Your task to perform on an android device: Show me recent news Image 0: 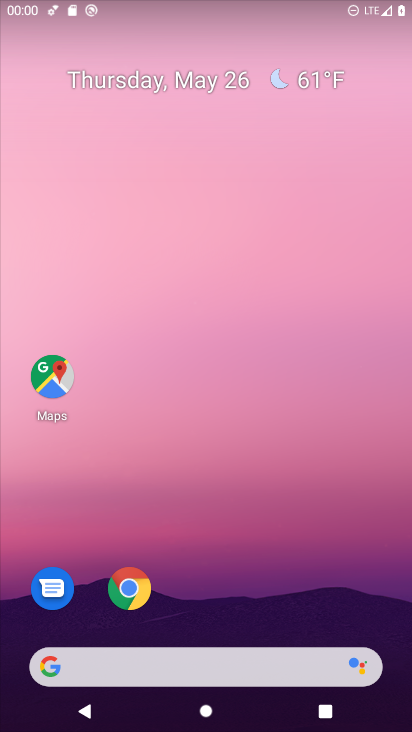
Step 0: drag from (12, 253) to (376, 199)
Your task to perform on an android device: Show me recent news Image 1: 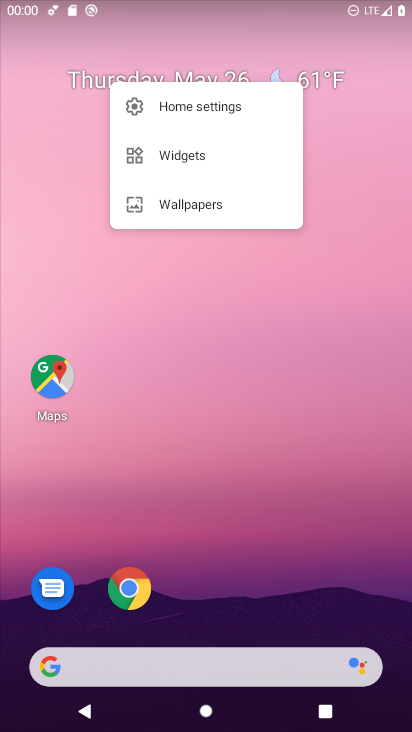
Step 1: click (221, 351)
Your task to perform on an android device: Show me recent news Image 2: 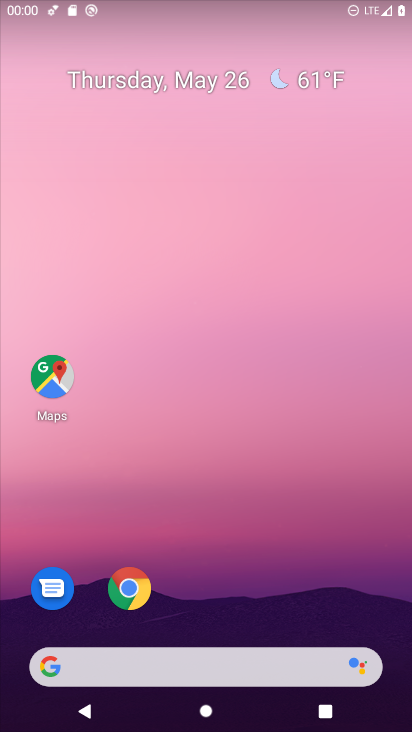
Step 2: drag from (15, 237) to (402, 299)
Your task to perform on an android device: Show me recent news Image 3: 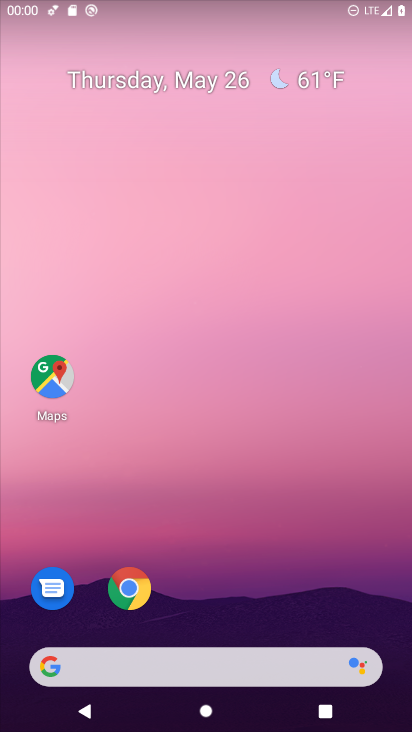
Step 3: drag from (21, 248) to (390, 334)
Your task to perform on an android device: Show me recent news Image 4: 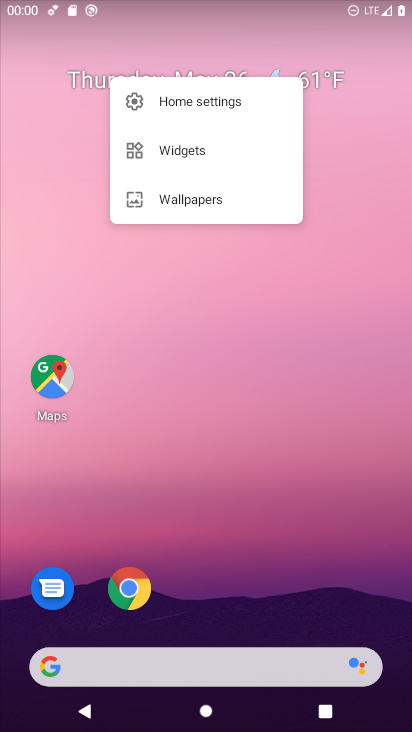
Step 4: click (10, 249)
Your task to perform on an android device: Show me recent news Image 5: 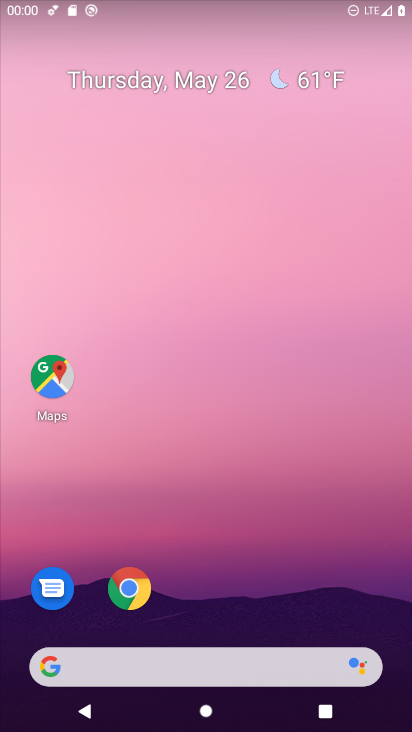
Step 5: drag from (10, 249) to (388, 275)
Your task to perform on an android device: Show me recent news Image 6: 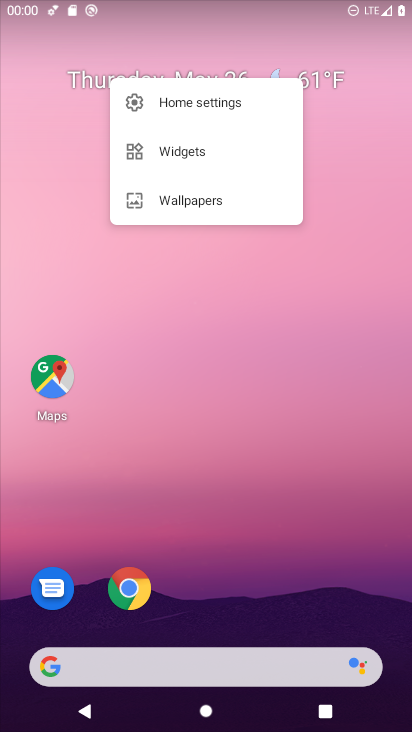
Step 6: click (32, 252)
Your task to perform on an android device: Show me recent news Image 7: 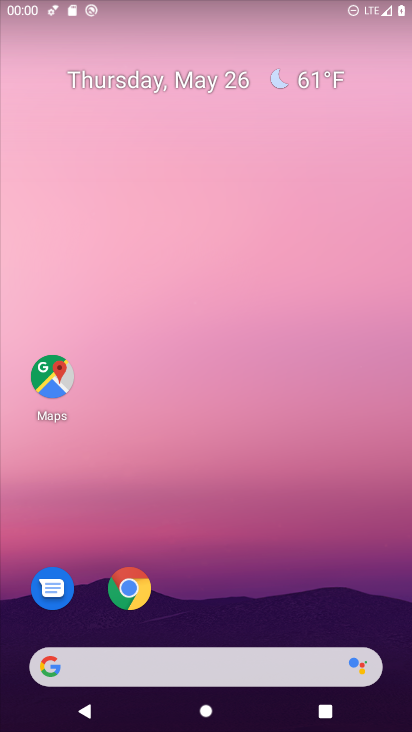
Step 7: task complete